Your task to perform on an android device: Go to CNN.com Image 0: 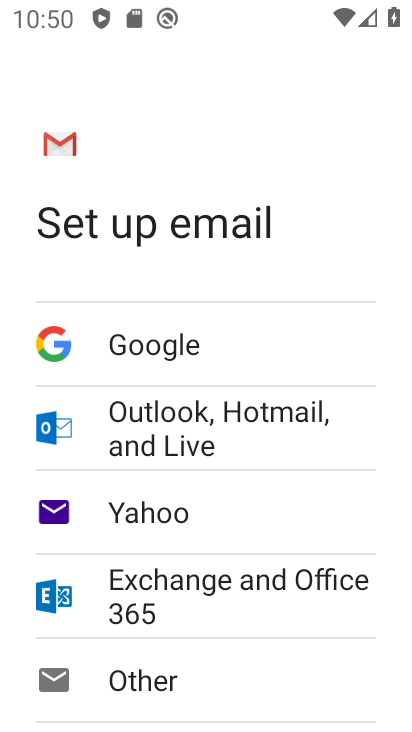
Step 0: press home button
Your task to perform on an android device: Go to CNN.com Image 1: 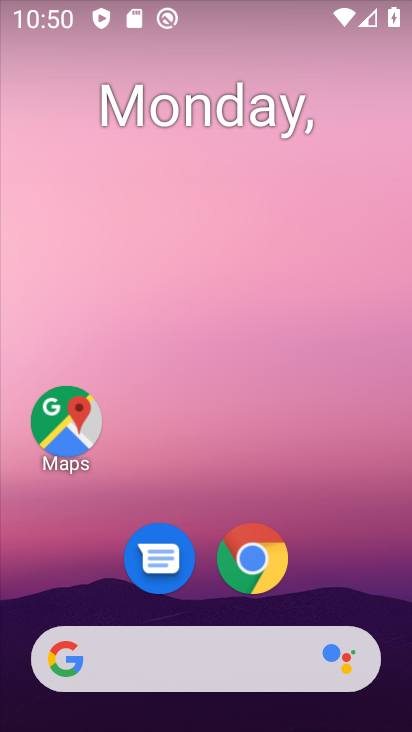
Step 1: drag from (214, 600) to (217, 110)
Your task to perform on an android device: Go to CNN.com Image 2: 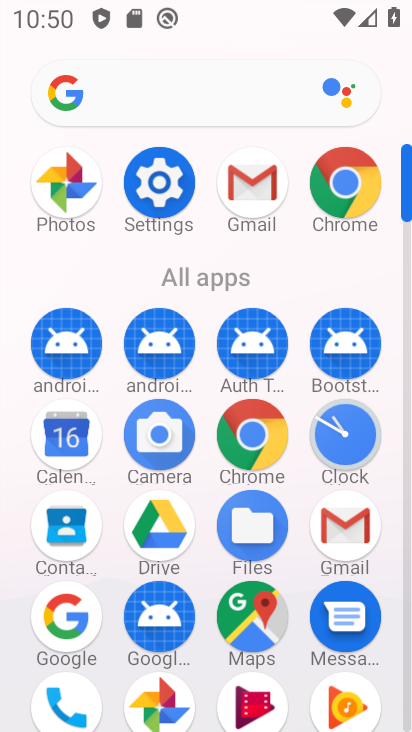
Step 2: click (73, 614)
Your task to perform on an android device: Go to CNN.com Image 3: 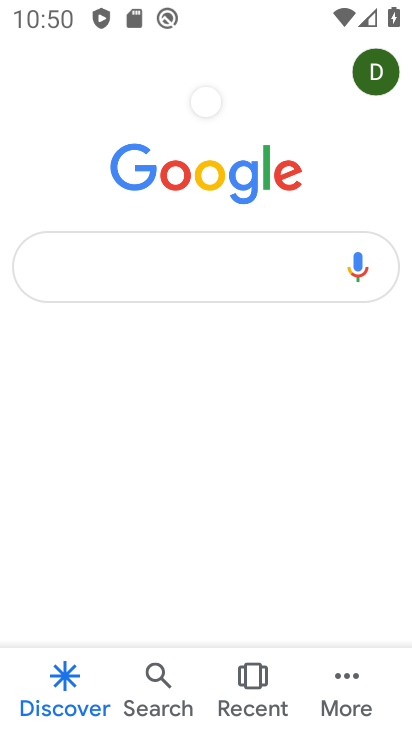
Step 3: click (161, 266)
Your task to perform on an android device: Go to CNN.com Image 4: 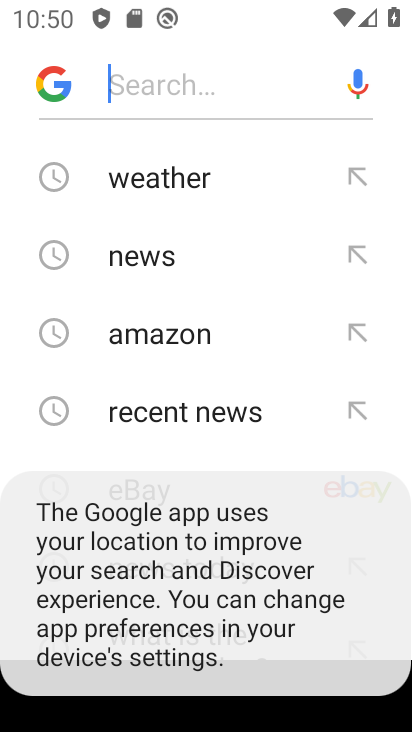
Step 4: drag from (220, 351) to (214, 43)
Your task to perform on an android device: Go to CNN.com Image 5: 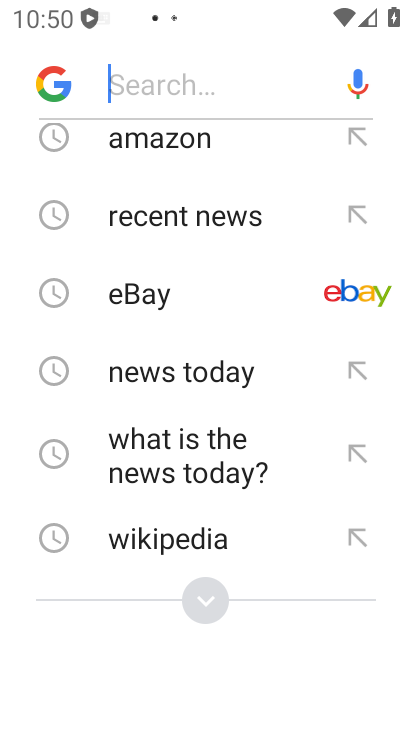
Step 5: type "cnn.com"
Your task to perform on an android device: Go to CNN.com Image 6: 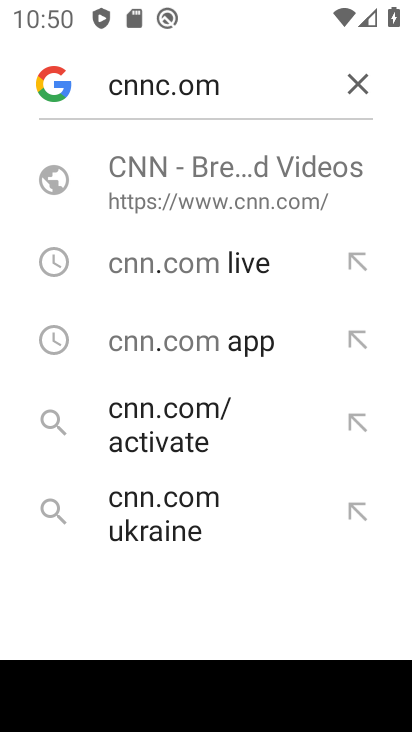
Step 6: click (189, 172)
Your task to perform on an android device: Go to CNN.com Image 7: 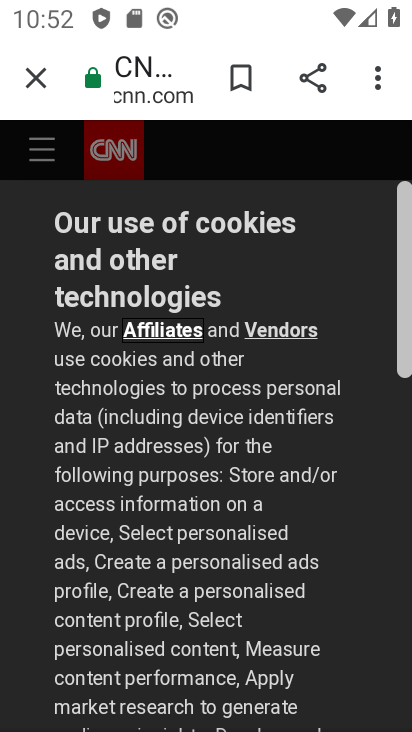
Step 7: task complete